Your task to perform on an android device: change alarm snooze length Image 0: 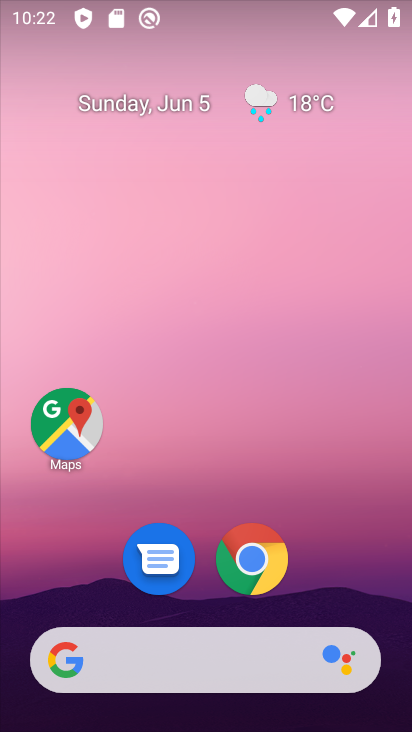
Step 0: drag from (202, 620) to (239, 75)
Your task to perform on an android device: change alarm snooze length Image 1: 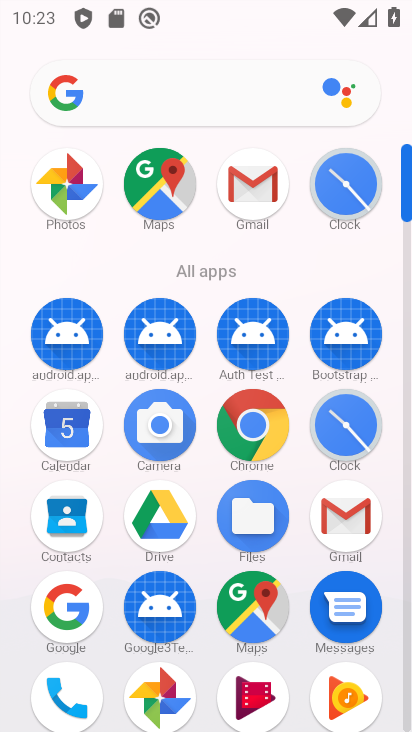
Step 1: click (330, 434)
Your task to perform on an android device: change alarm snooze length Image 2: 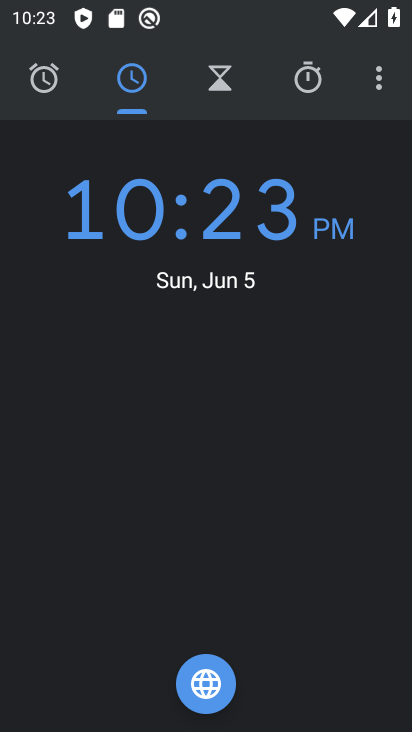
Step 2: click (379, 89)
Your task to perform on an android device: change alarm snooze length Image 3: 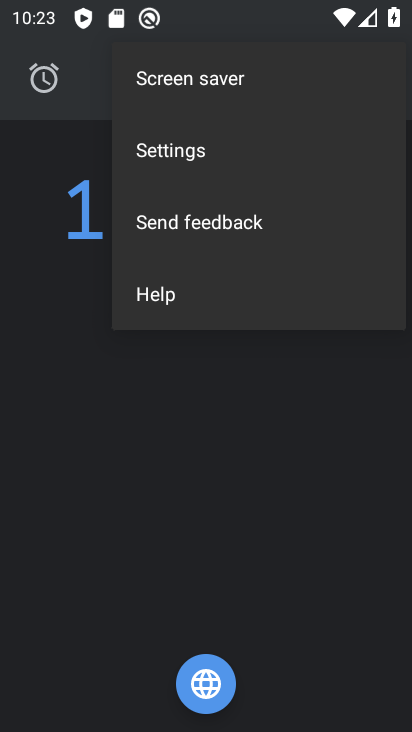
Step 3: click (193, 146)
Your task to perform on an android device: change alarm snooze length Image 4: 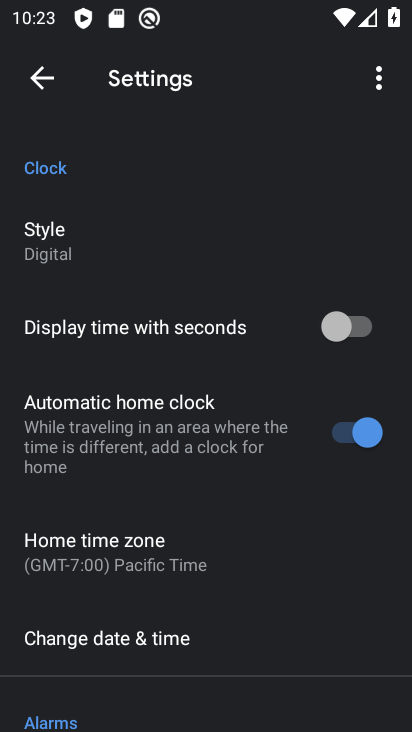
Step 4: drag from (106, 551) to (113, 323)
Your task to perform on an android device: change alarm snooze length Image 5: 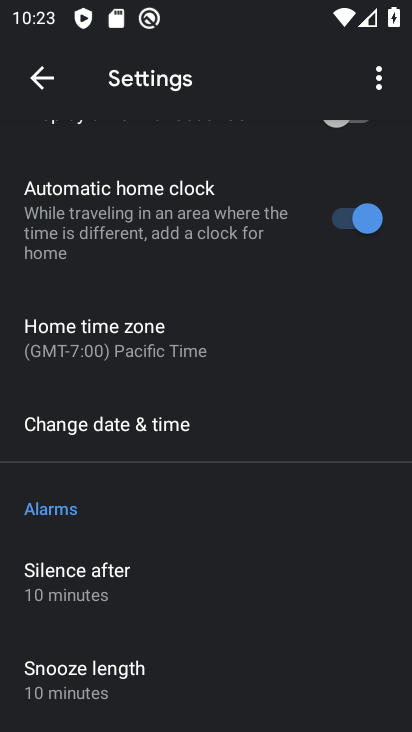
Step 5: click (68, 640)
Your task to perform on an android device: change alarm snooze length Image 6: 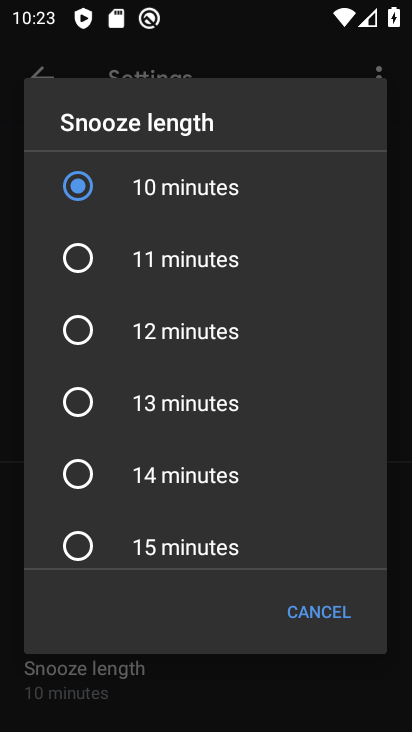
Step 6: click (102, 308)
Your task to perform on an android device: change alarm snooze length Image 7: 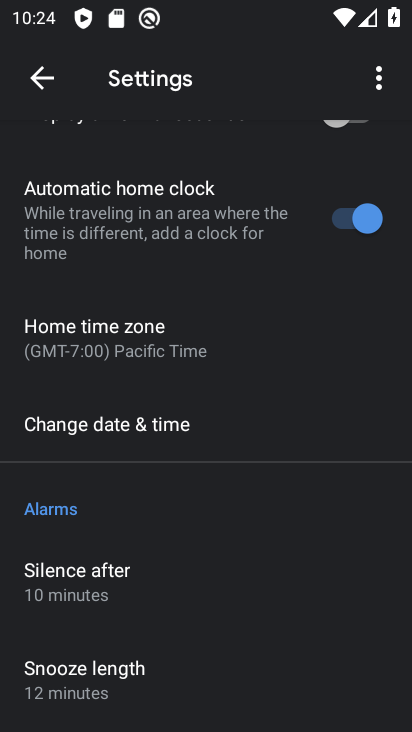
Step 7: click (90, 659)
Your task to perform on an android device: change alarm snooze length Image 8: 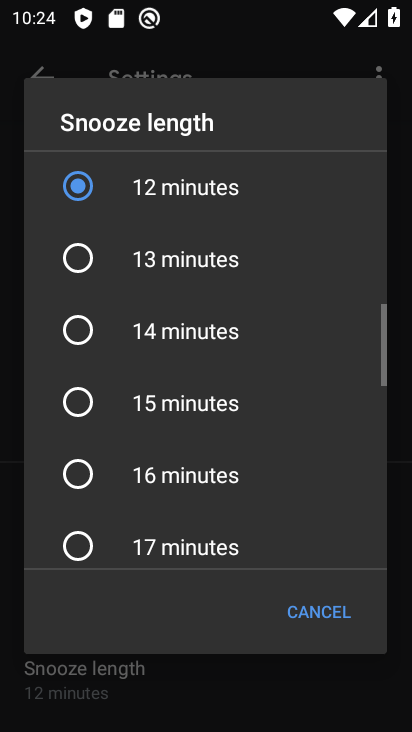
Step 8: click (109, 253)
Your task to perform on an android device: change alarm snooze length Image 9: 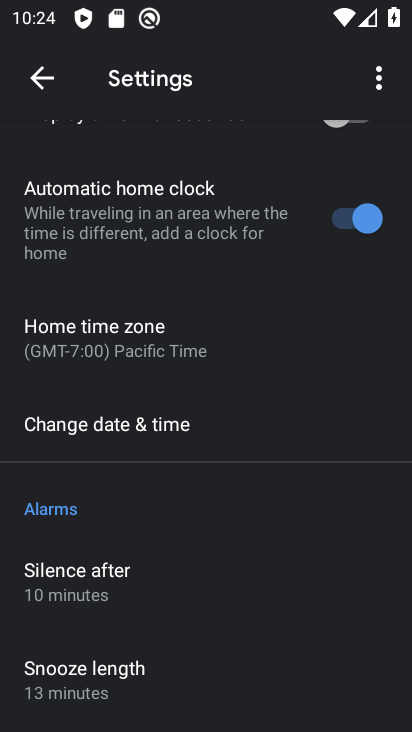
Step 9: task complete